Your task to perform on an android device: Open Google Image 0: 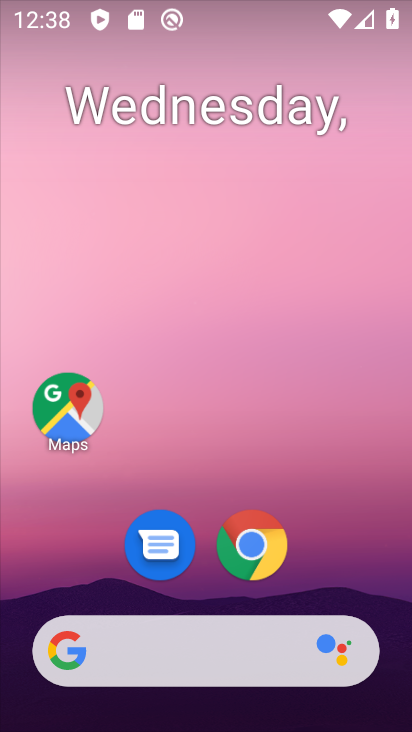
Step 0: drag from (335, 595) to (393, 247)
Your task to perform on an android device: Open Google Image 1: 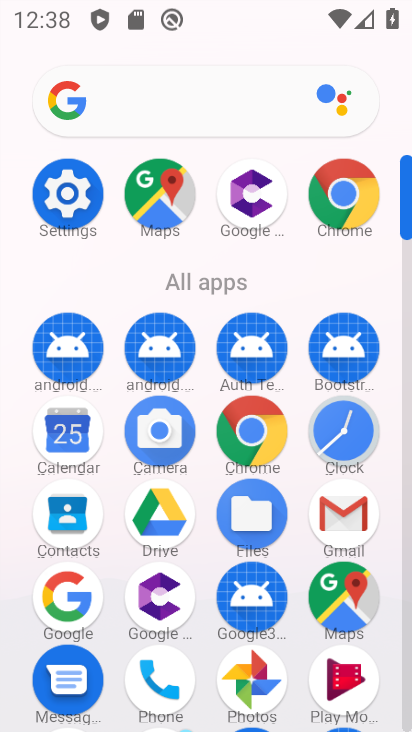
Step 1: click (248, 441)
Your task to perform on an android device: Open Google Image 2: 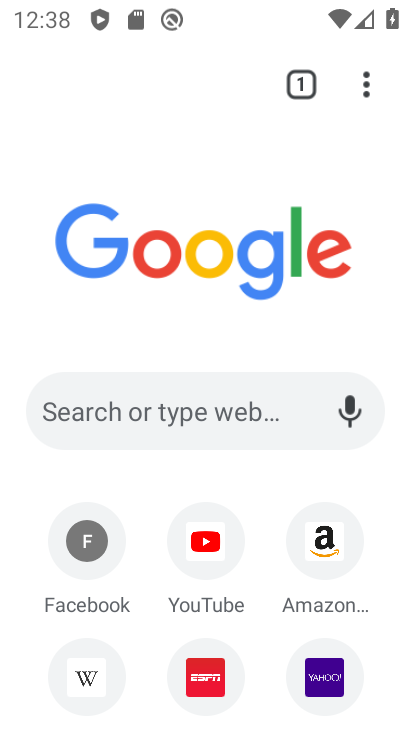
Step 2: press home button
Your task to perform on an android device: Open Google Image 3: 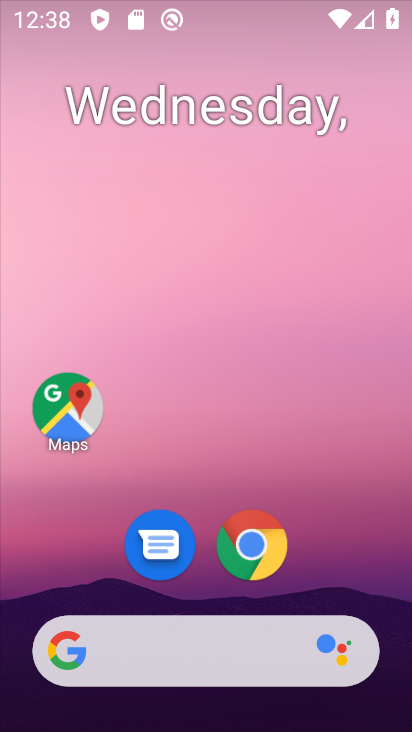
Step 3: drag from (340, 514) to (297, 77)
Your task to perform on an android device: Open Google Image 4: 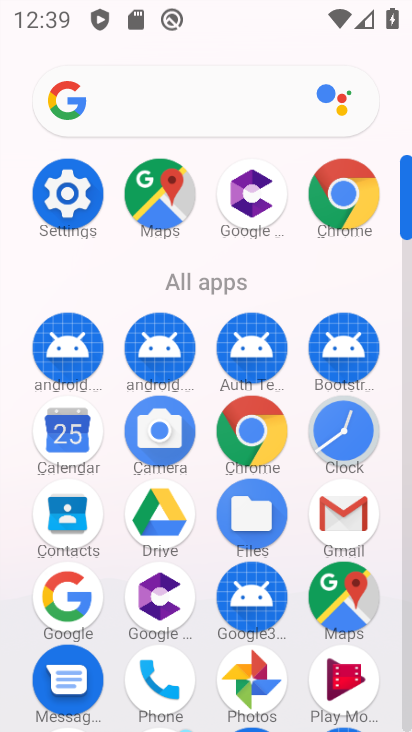
Step 4: click (74, 583)
Your task to perform on an android device: Open Google Image 5: 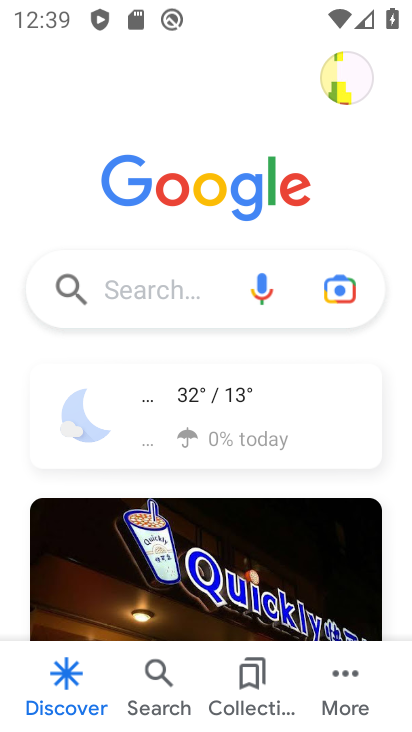
Step 5: task complete